Your task to perform on an android device: move a message to another label in the gmail app Image 0: 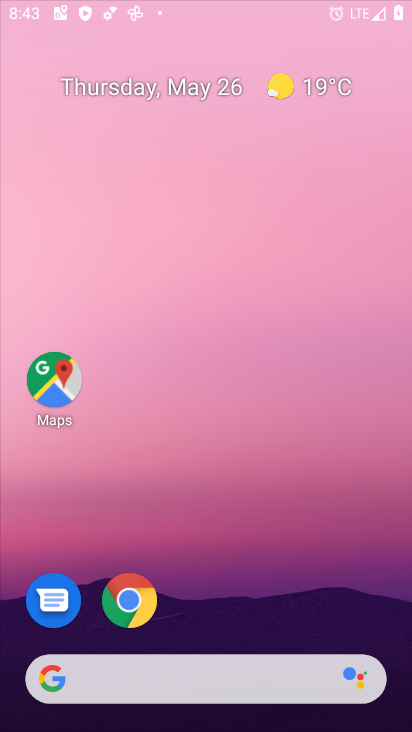
Step 0: press home button
Your task to perform on an android device: move a message to another label in the gmail app Image 1: 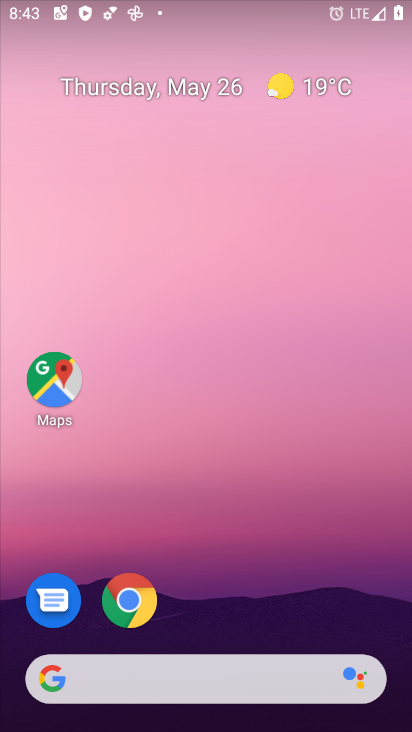
Step 1: drag from (293, 628) to (301, 265)
Your task to perform on an android device: move a message to another label in the gmail app Image 2: 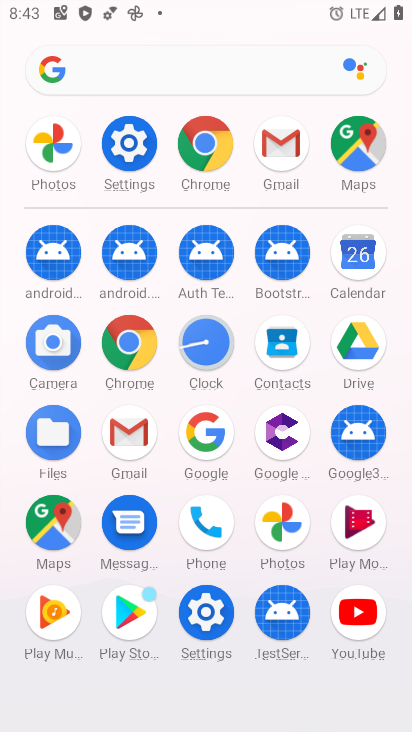
Step 2: click (285, 152)
Your task to perform on an android device: move a message to another label in the gmail app Image 3: 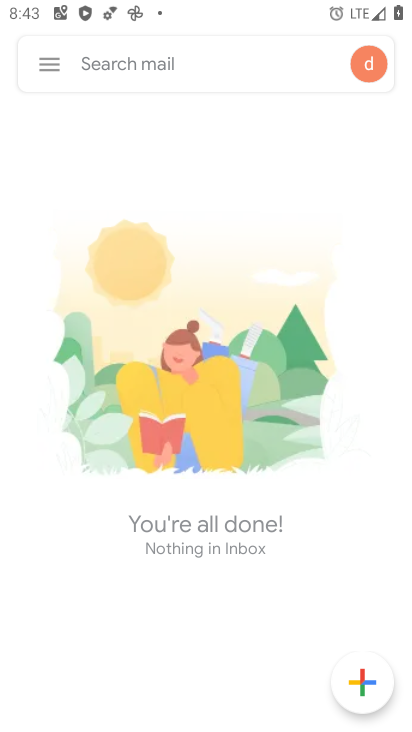
Step 3: click (55, 67)
Your task to perform on an android device: move a message to another label in the gmail app Image 4: 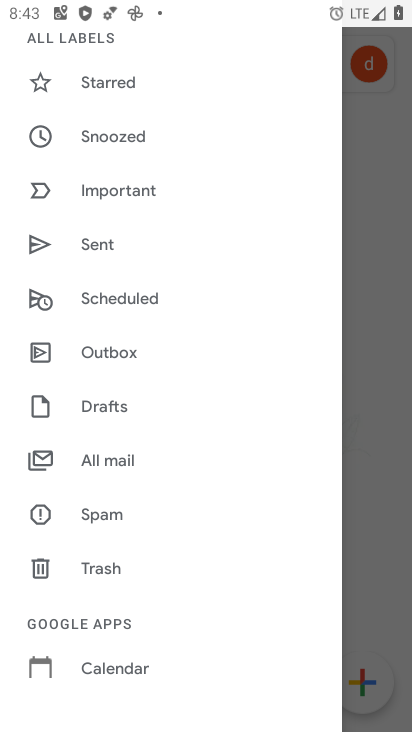
Step 4: click (110, 456)
Your task to perform on an android device: move a message to another label in the gmail app Image 5: 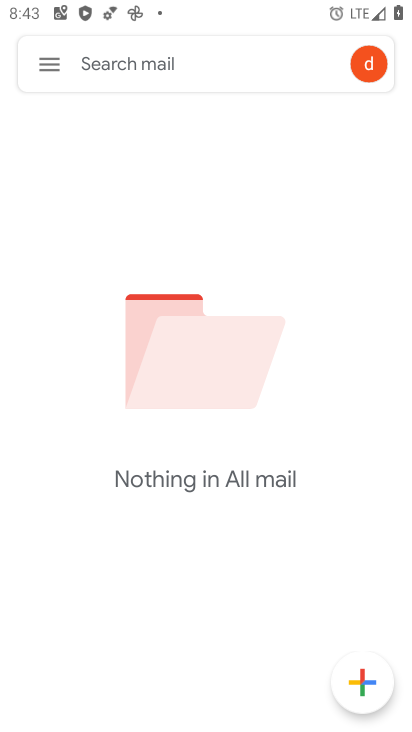
Step 5: task complete